Your task to perform on an android device: turn on sleep mode Image 0: 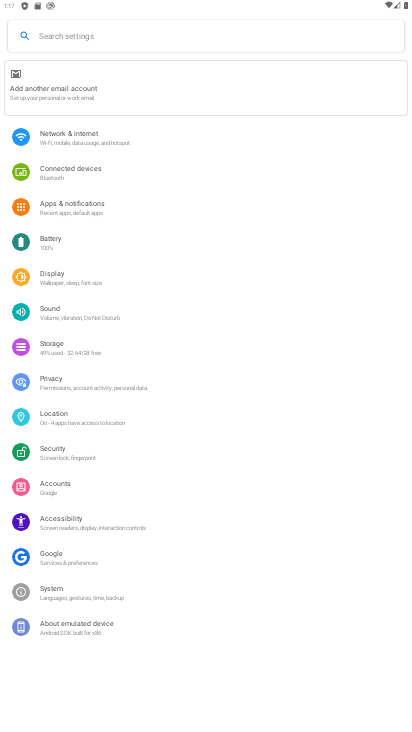
Step 0: press home button
Your task to perform on an android device: turn on sleep mode Image 1: 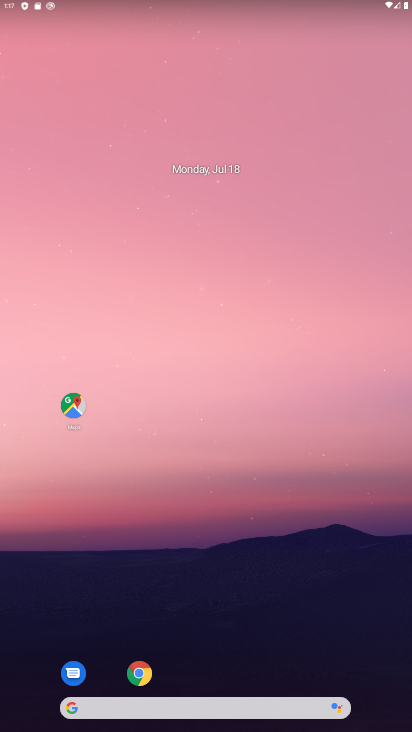
Step 1: drag from (385, 677) to (331, 168)
Your task to perform on an android device: turn on sleep mode Image 2: 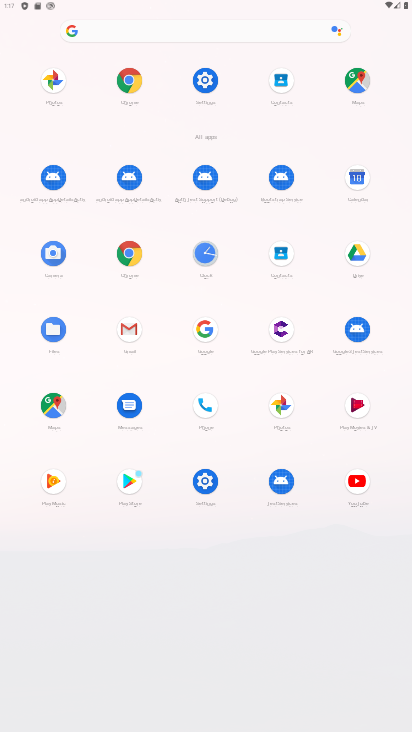
Step 2: click (197, 85)
Your task to perform on an android device: turn on sleep mode Image 3: 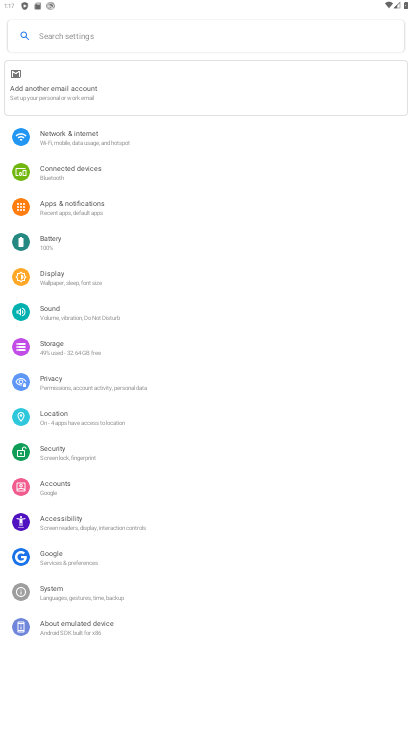
Step 3: click (55, 272)
Your task to perform on an android device: turn on sleep mode Image 4: 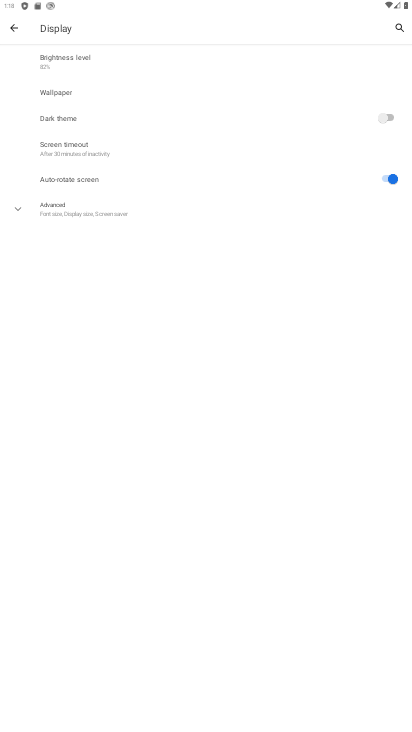
Step 4: click (61, 154)
Your task to perform on an android device: turn on sleep mode Image 5: 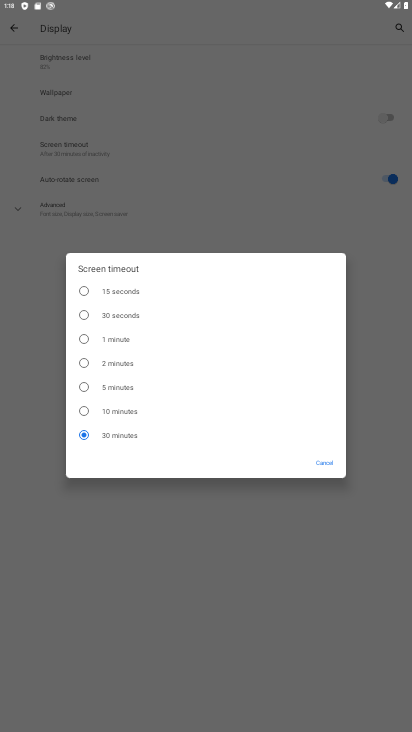
Step 5: task complete